Your task to perform on an android device: Add "corsair k70" to the cart on newegg, then select checkout. Image 0: 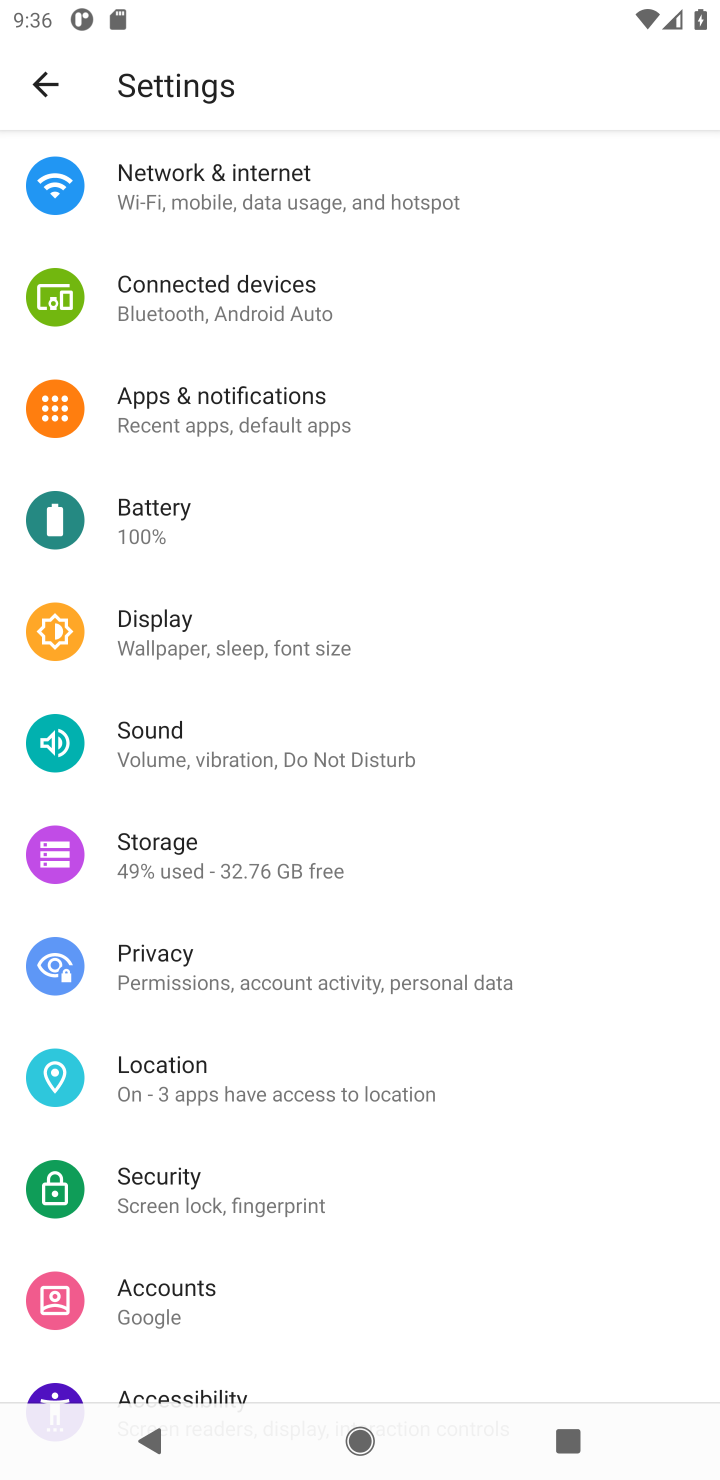
Step 0: press home button
Your task to perform on an android device: Add "corsair k70" to the cart on newegg, then select checkout. Image 1: 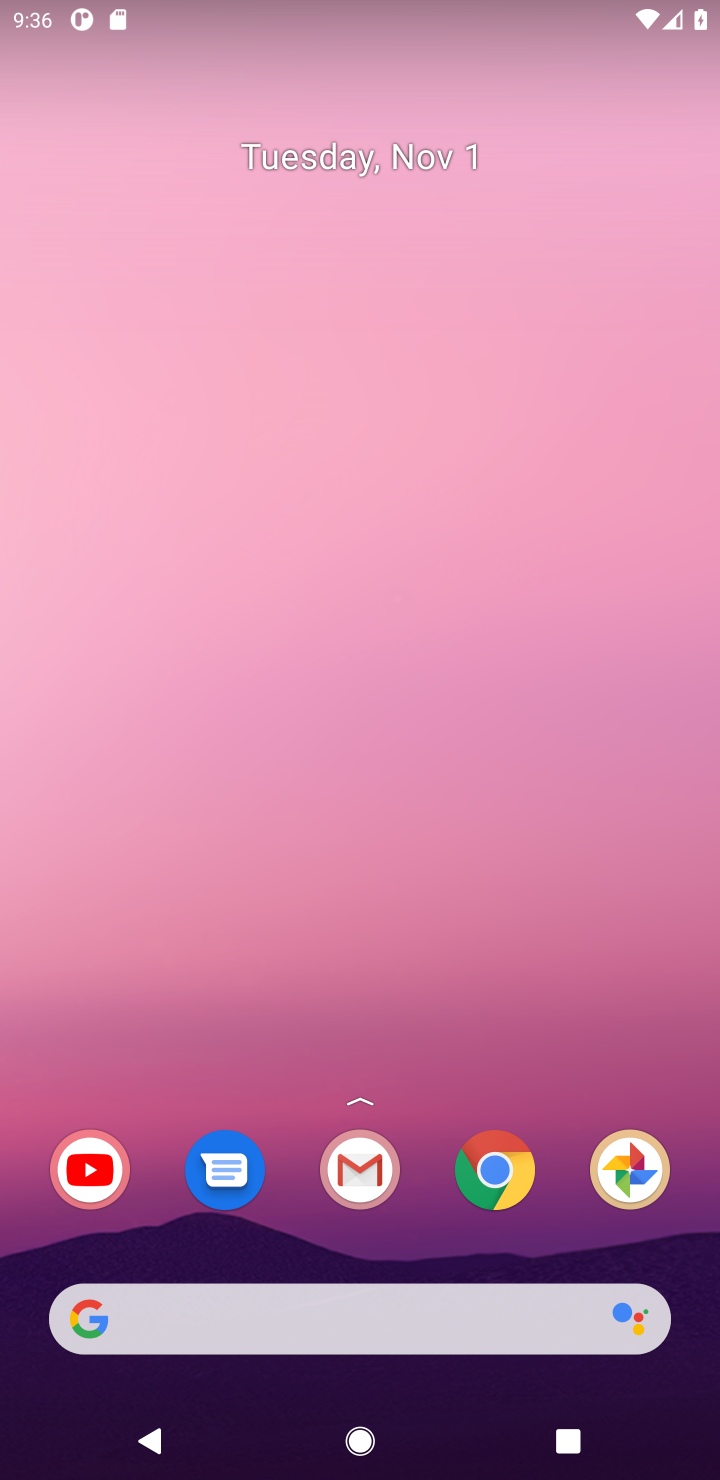
Step 1: click (88, 1316)
Your task to perform on an android device: Add "corsair k70" to the cart on newegg, then select checkout. Image 2: 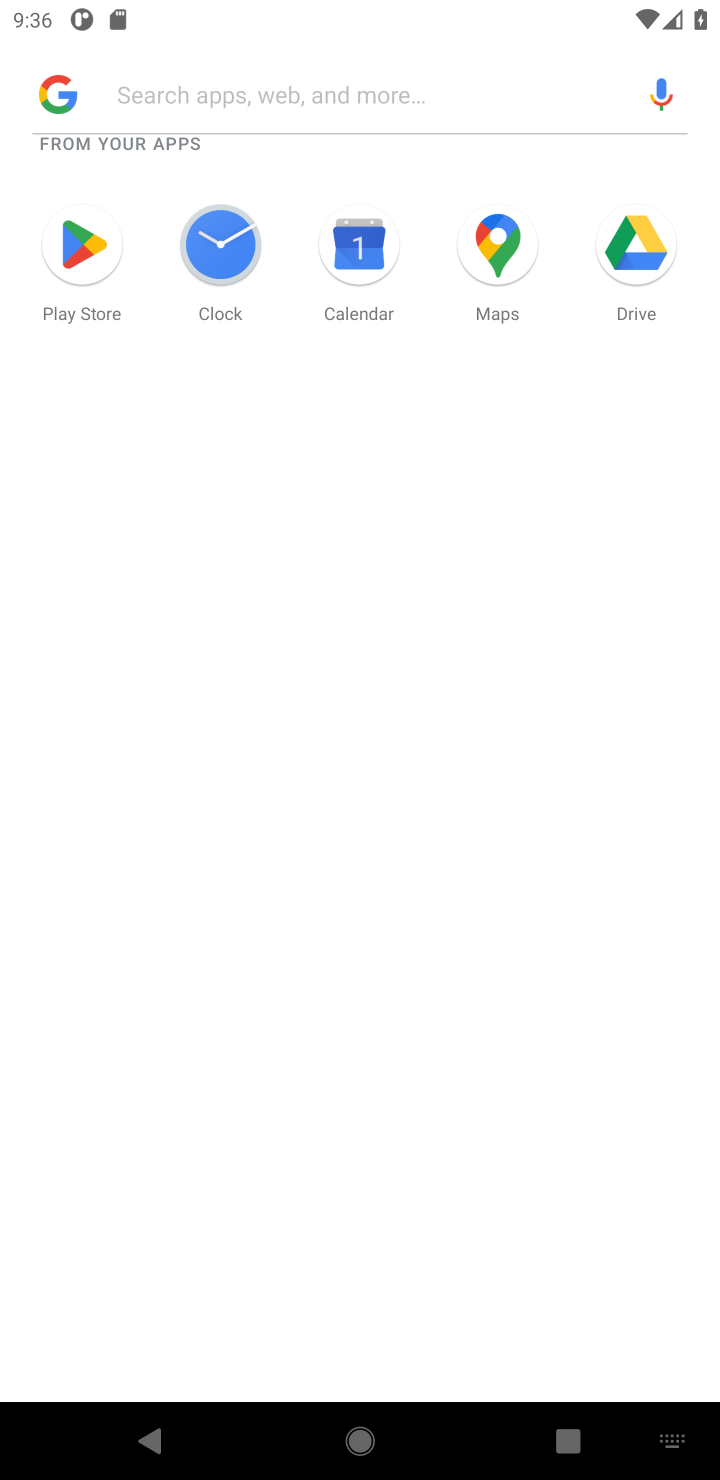
Step 2: type "newegg"
Your task to perform on an android device: Add "corsair k70" to the cart on newegg, then select checkout. Image 3: 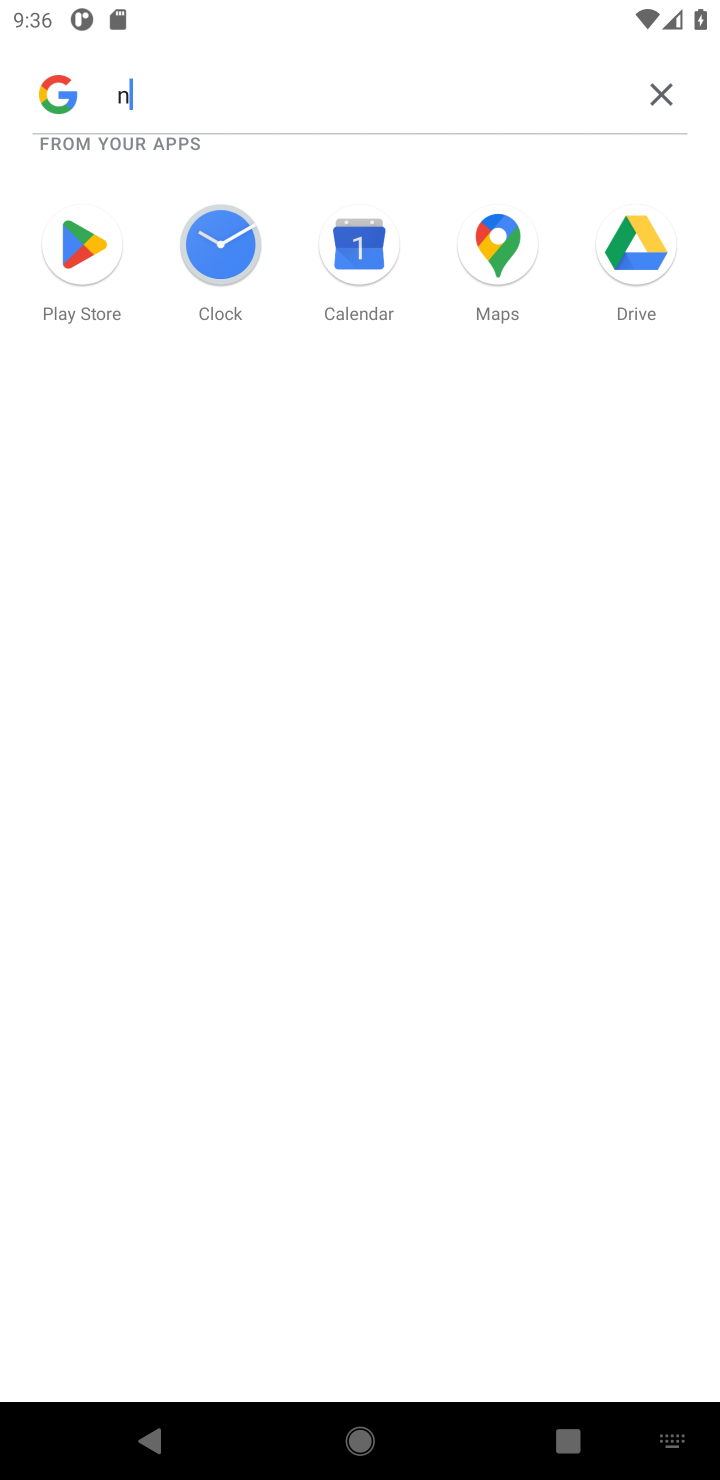
Step 3: press home button
Your task to perform on an android device: Add "corsair k70" to the cart on newegg, then select checkout. Image 4: 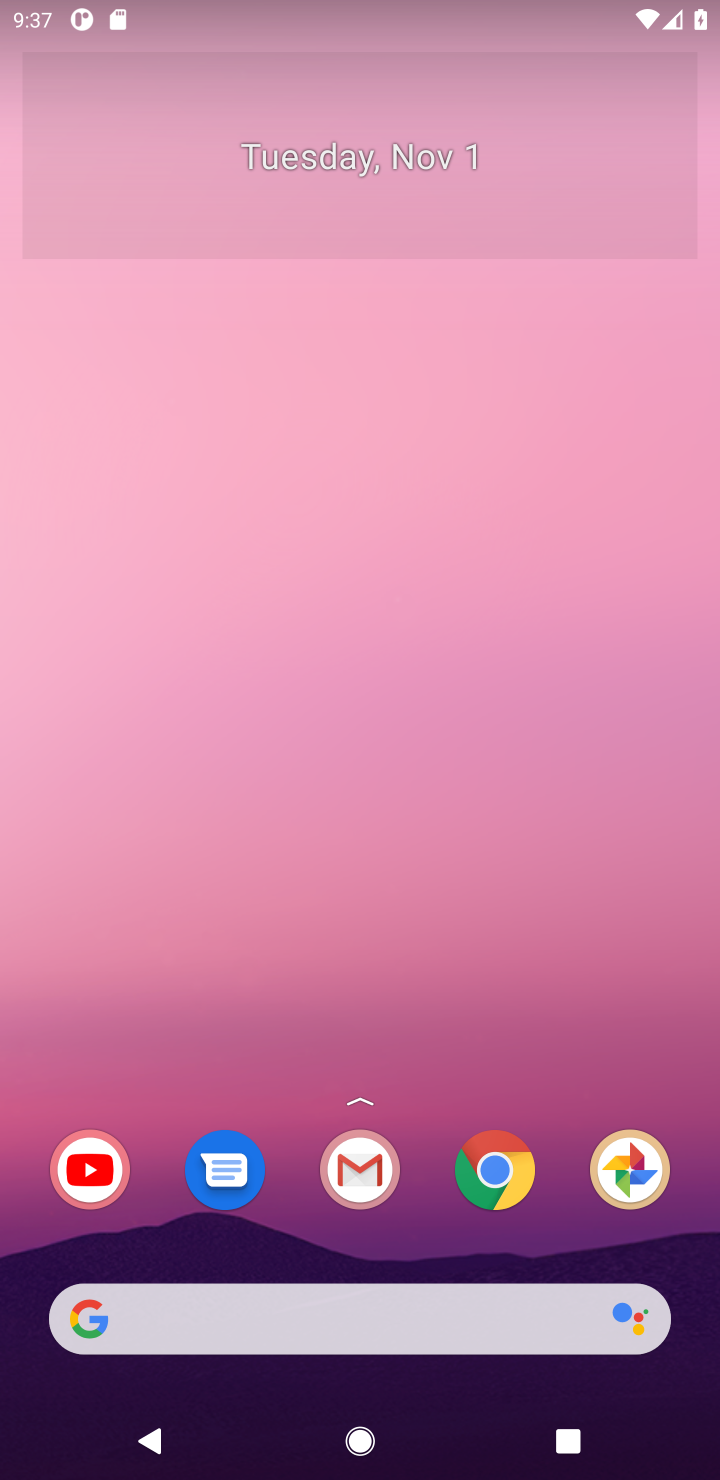
Step 4: click (488, 1185)
Your task to perform on an android device: Add "corsair k70" to the cart on newegg, then select checkout. Image 5: 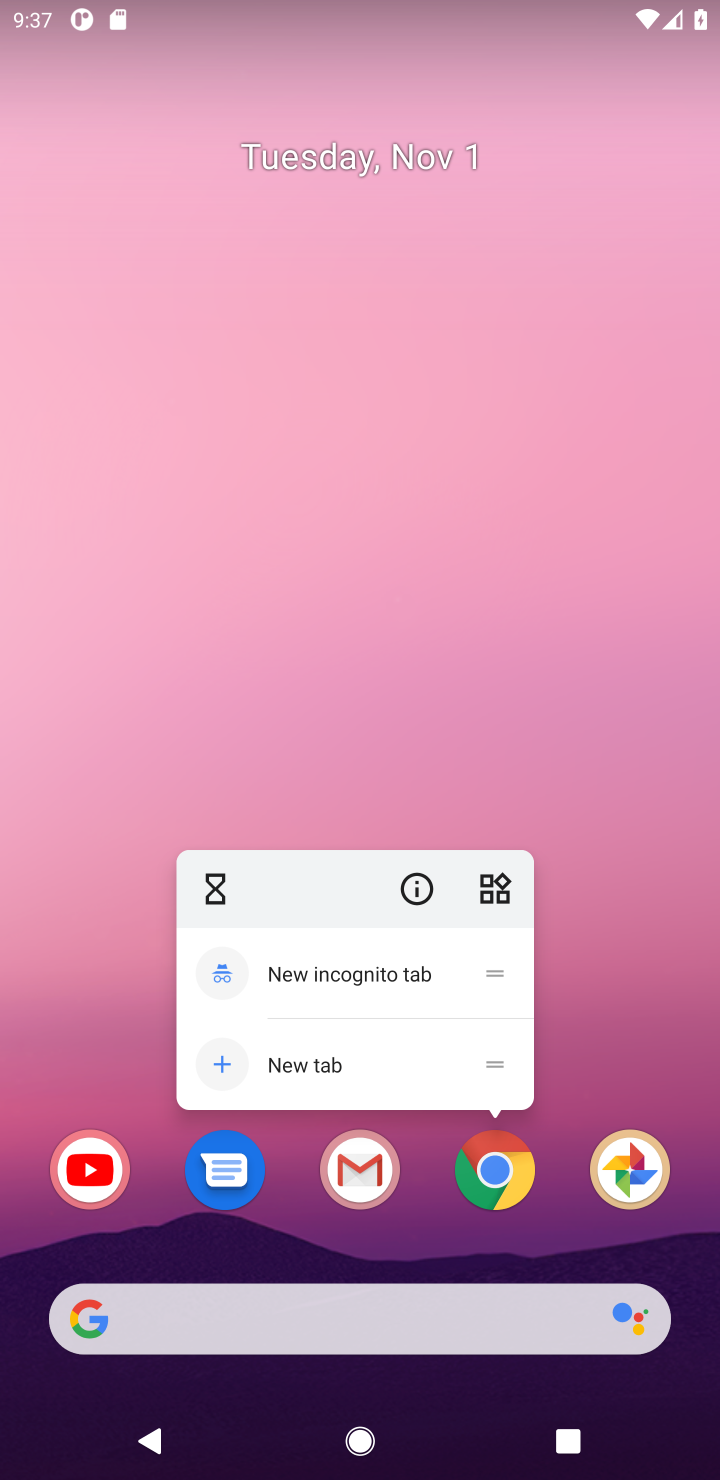
Step 5: click (87, 1333)
Your task to perform on an android device: Add "corsair k70" to the cart on newegg, then select checkout. Image 6: 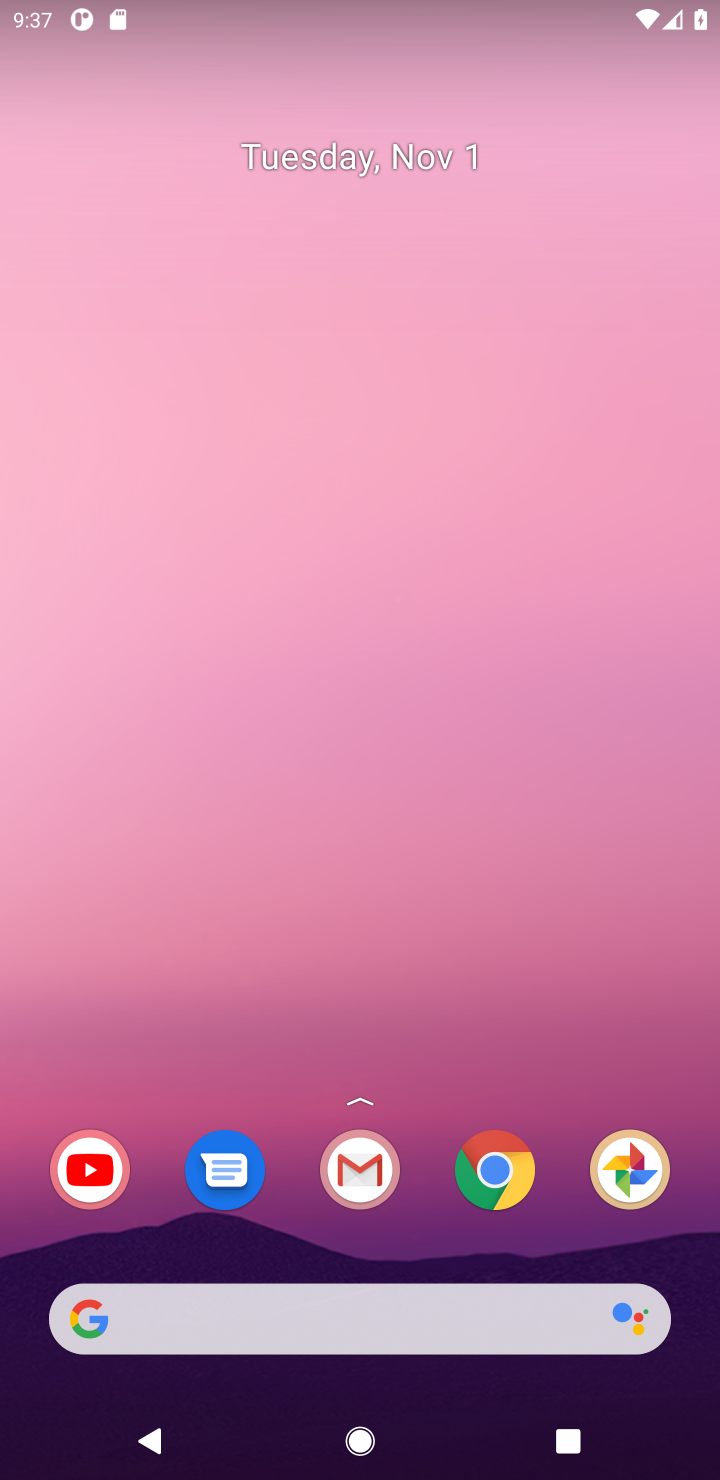
Step 6: click (85, 1325)
Your task to perform on an android device: Add "corsair k70" to the cart on newegg, then select checkout. Image 7: 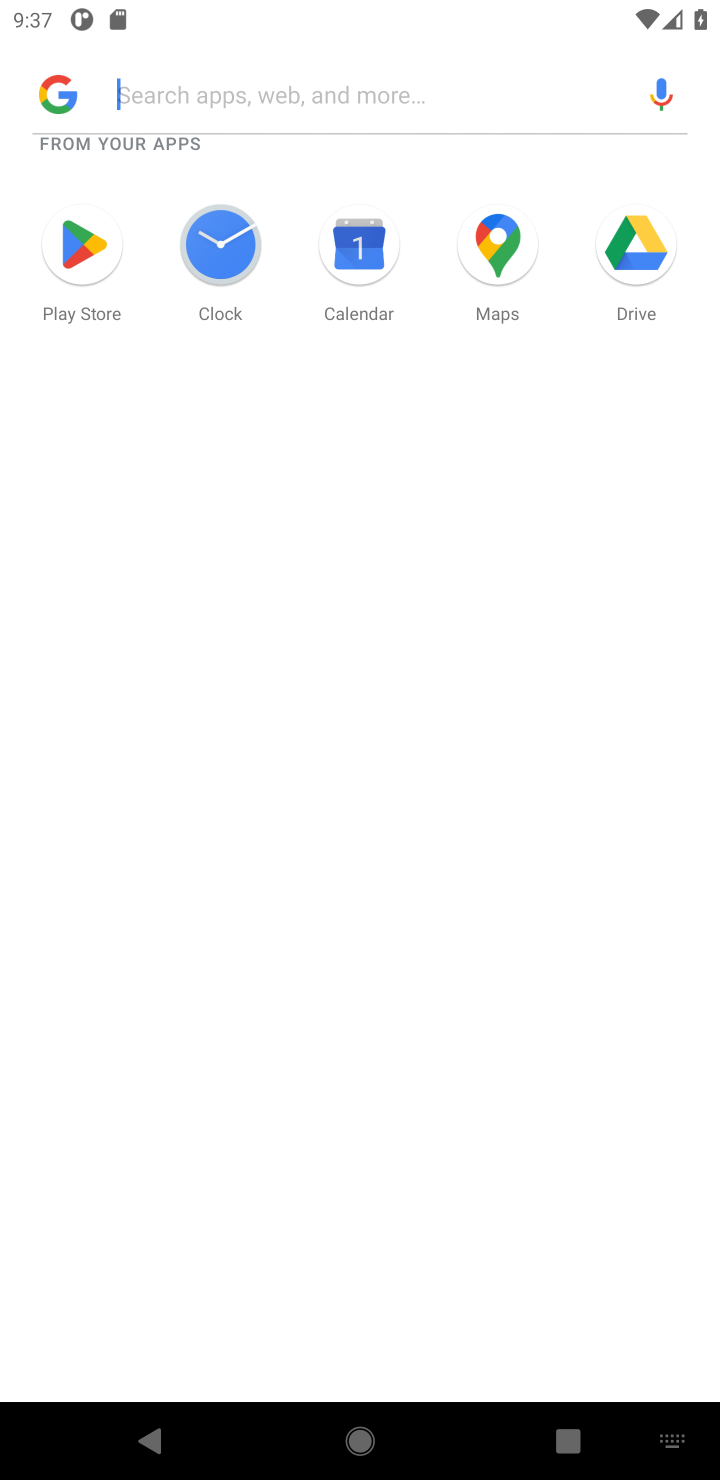
Step 7: press home button
Your task to perform on an android device: Add "corsair k70" to the cart on newegg, then select checkout. Image 8: 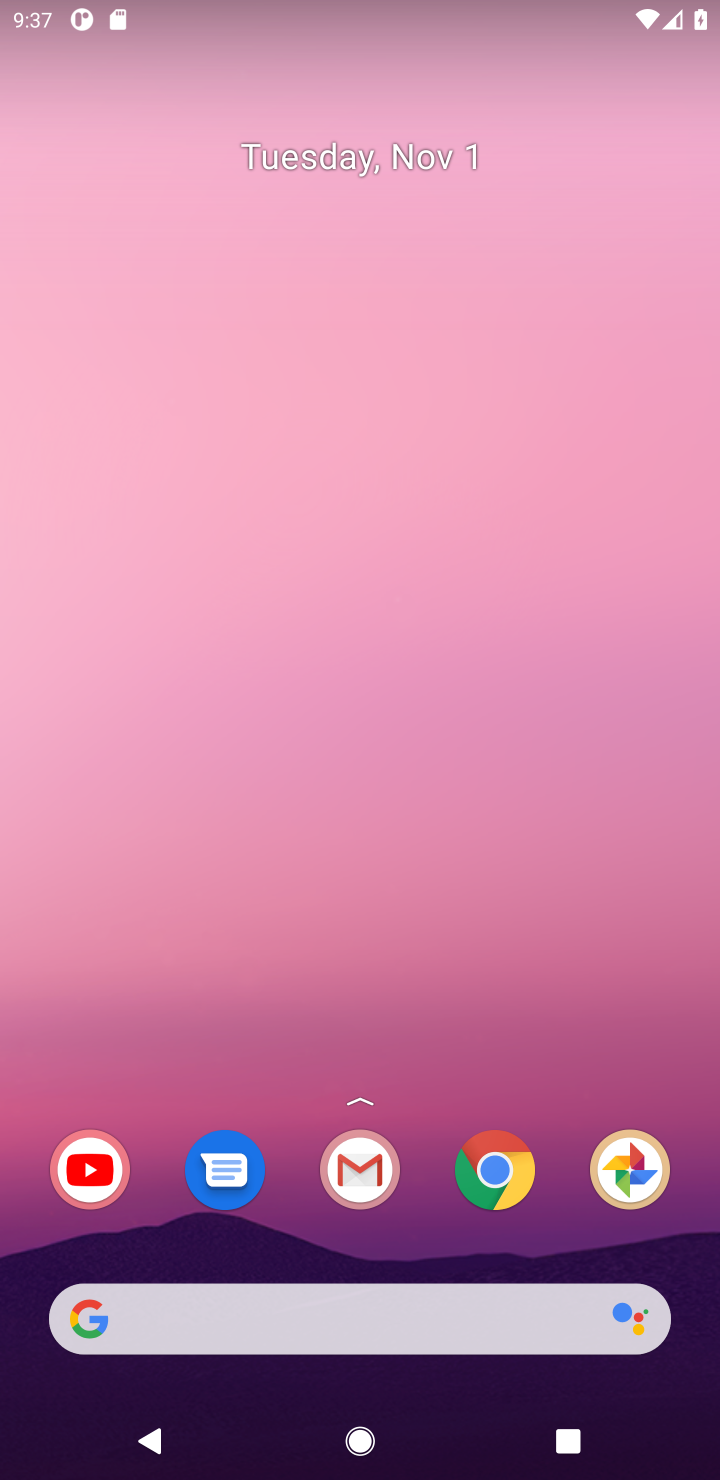
Step 8: click (505, 1164)
Your task to perform on an android device: Add "corsair k70" to the cart on newegg, then select checkout. Image 9: 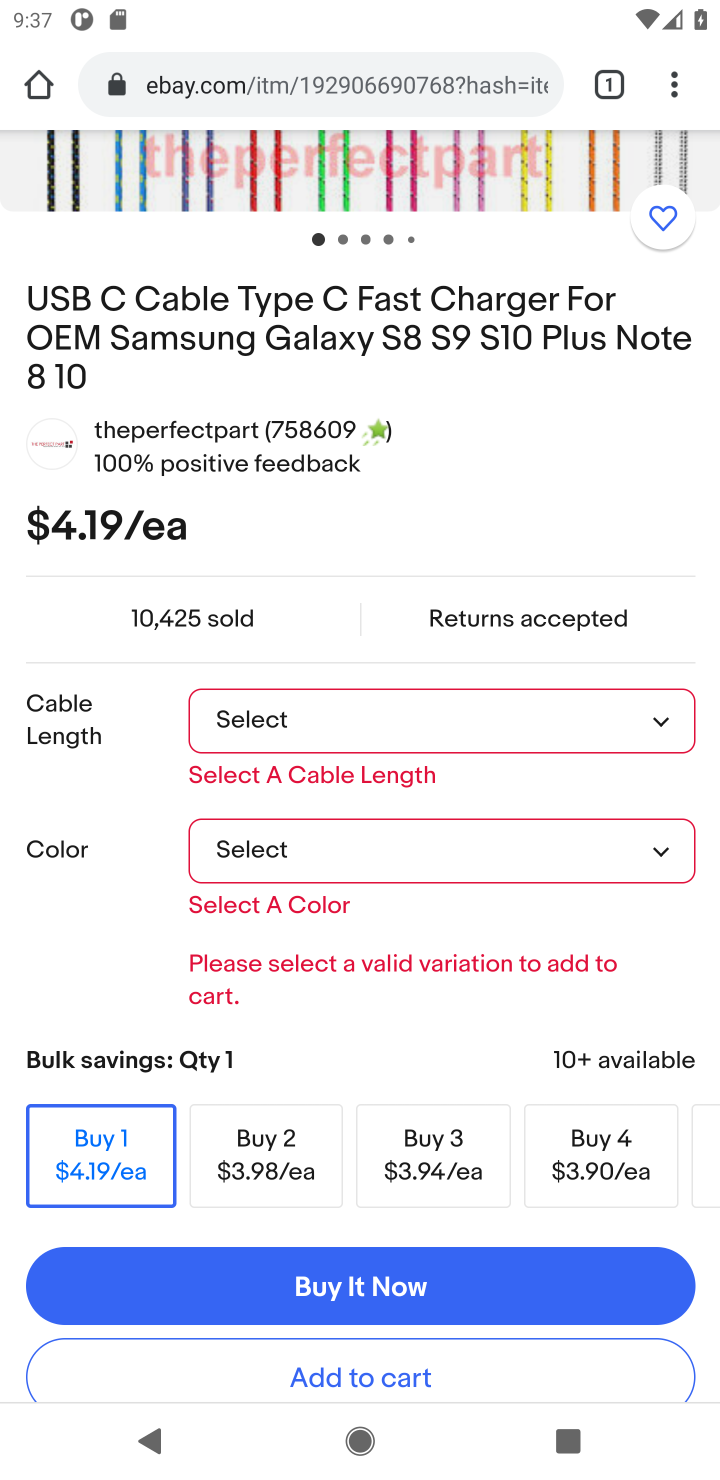
Step 9: click (390, 75)
Your task to perform on an android device: Add "corsair k70" to the cart on newegg, then select checkout. Image 10: 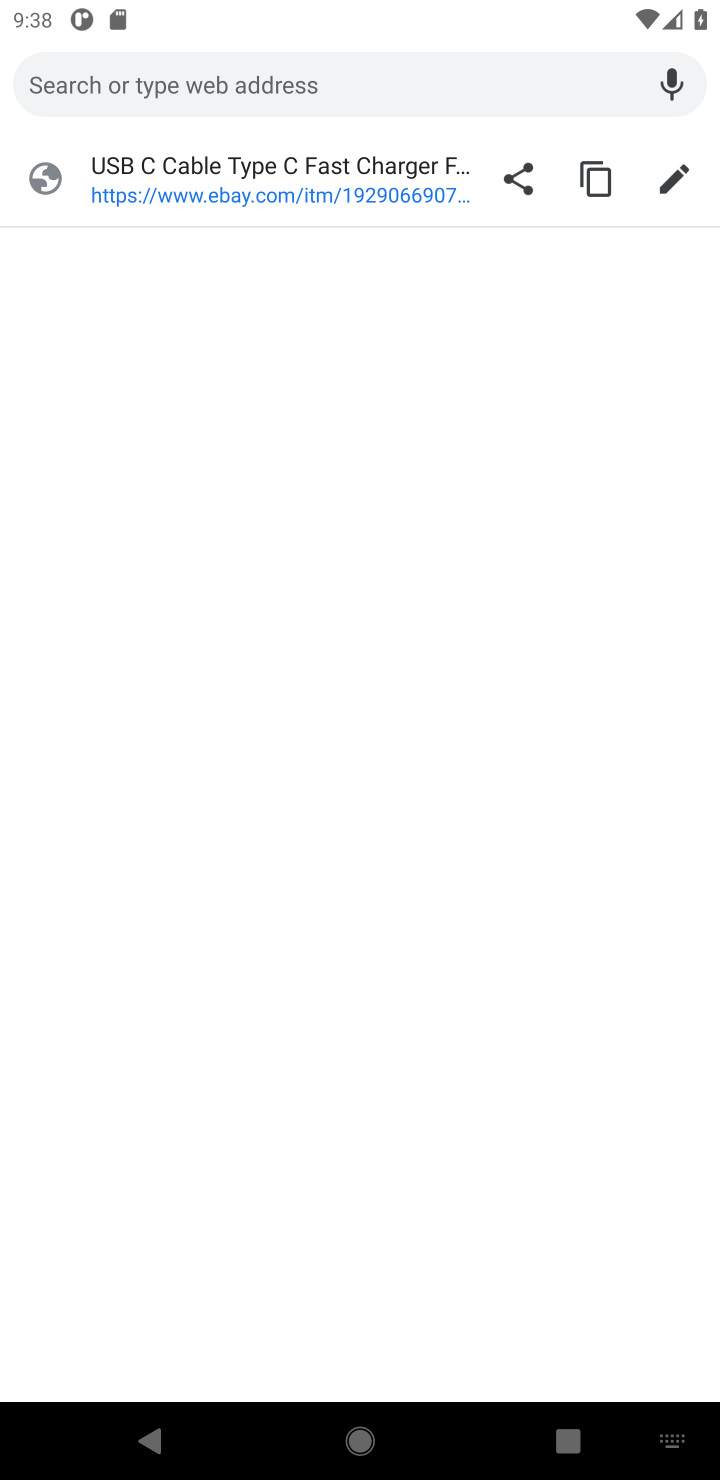
Step 10: type "newegg"
Your task to perform on an android device: Add "corsair k70" to the cart on newegg, then select checkout. Image 11: 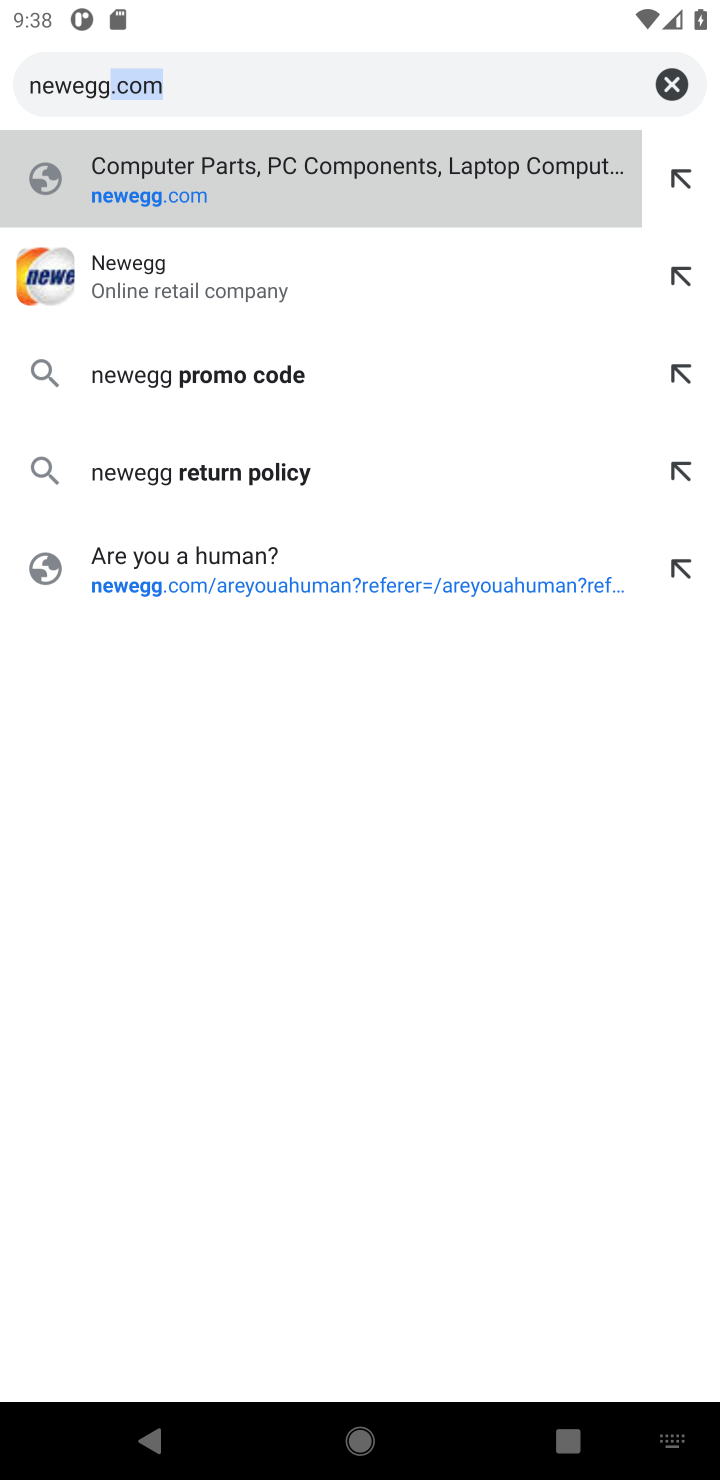
Step 11: click (149, 268)
Your task to perform on an android device: Add "corsair k70" to the cart on newegg, then select checkout. Image 12: 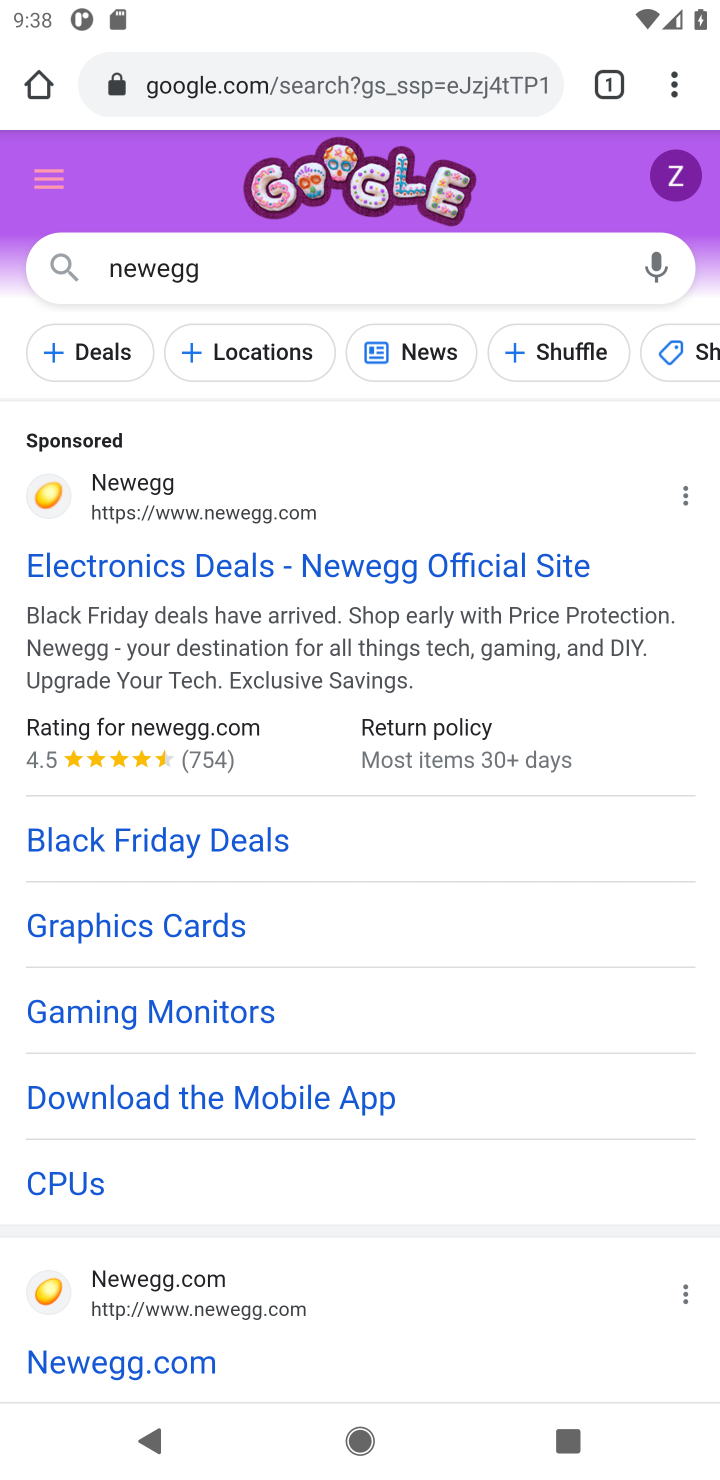
Step 12: click (147, 489)
Your task to perform on an android device: Add "corsair k70" to the cart on newegg, then select checkout. Image 13: 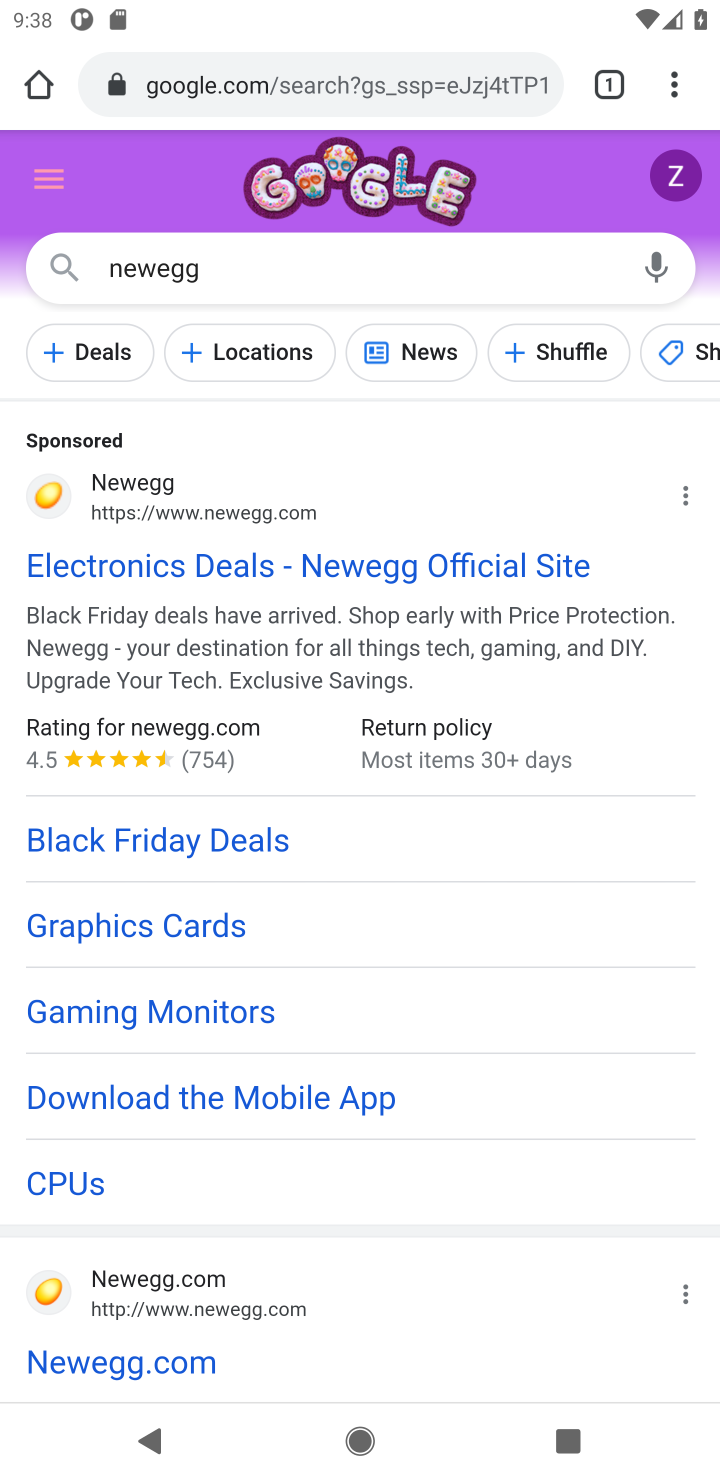
Step 13: click (150, 569)
Your task to perform on an android device: Add "corsair k70" to the cart on newegg, then select checkout. Image 14: 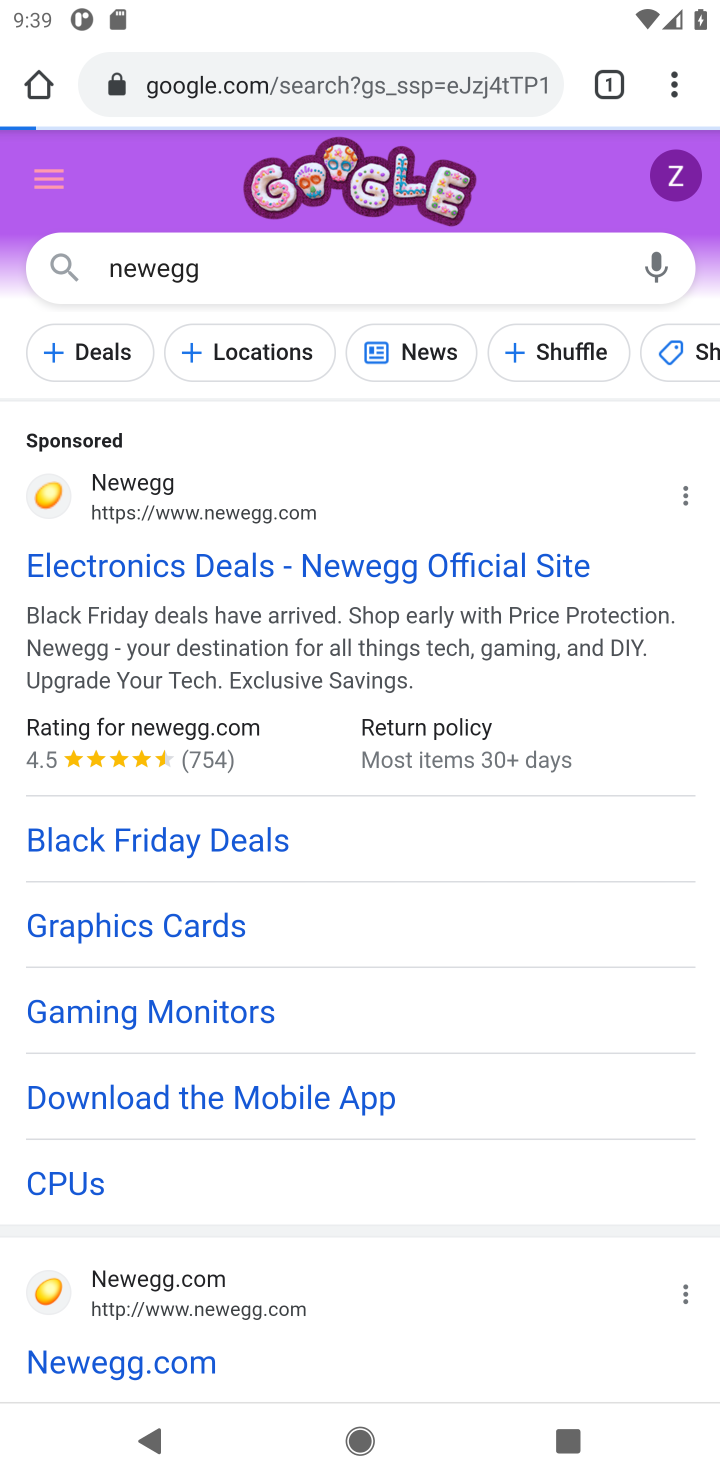
Step 14: click (489, 569)
Your task to perform on an android device: Add "corsair k70" to the cart on newegg, then select checkout. Image 15: 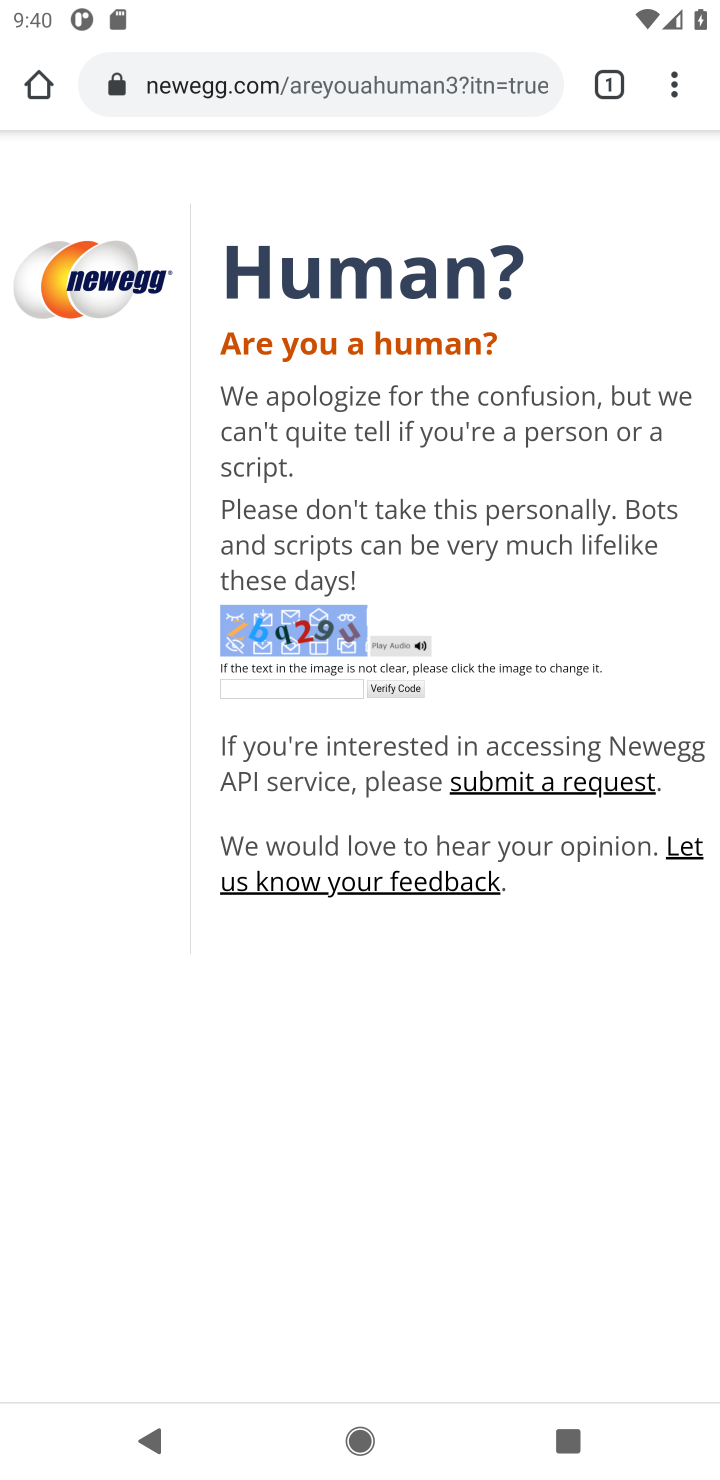
Step 15: click (118, 285)
Your task to perform on an android device: Add "corsair k70" to the cart on newegg, then select checkout. Image 16: 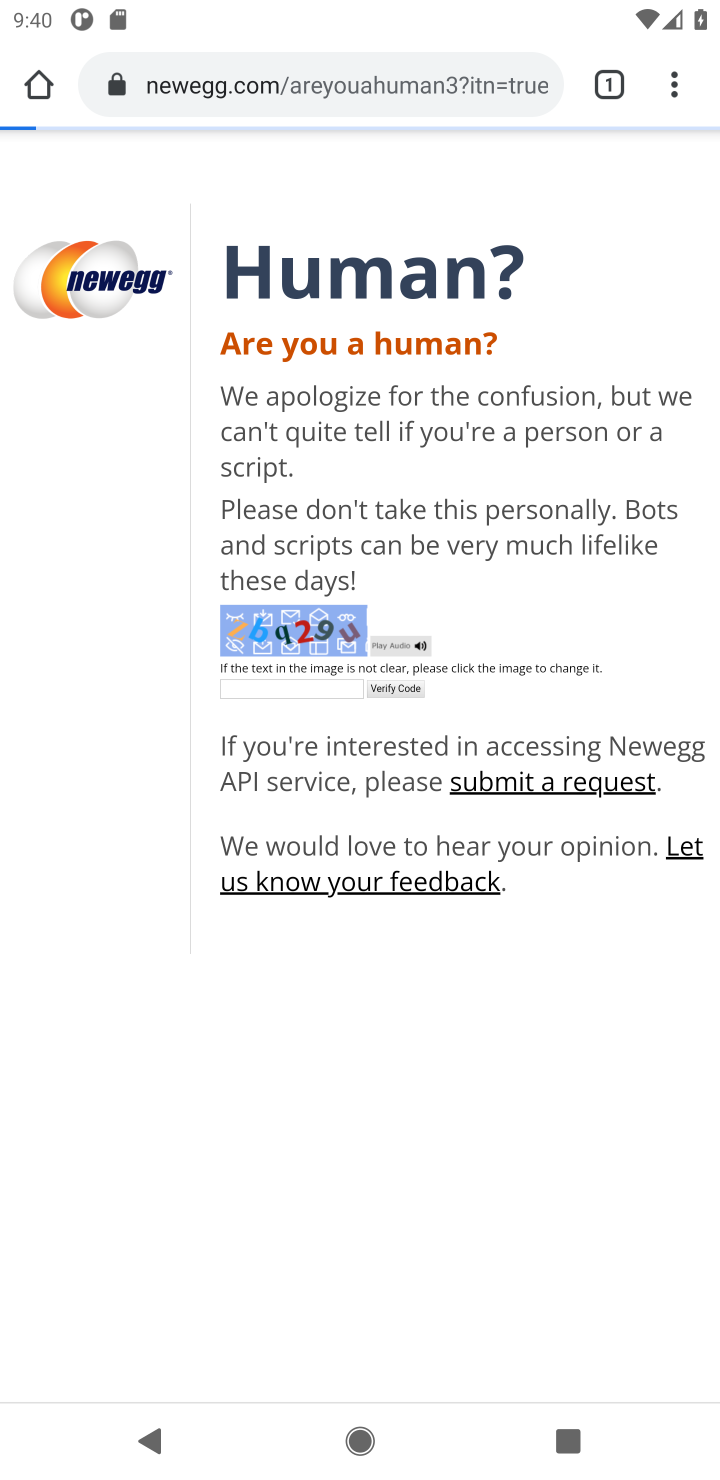
Step 16: click (118, 285)
Your task to perform on an android device: Add "corsair k70" to the cart on newegg, then select checkout. Image 17: 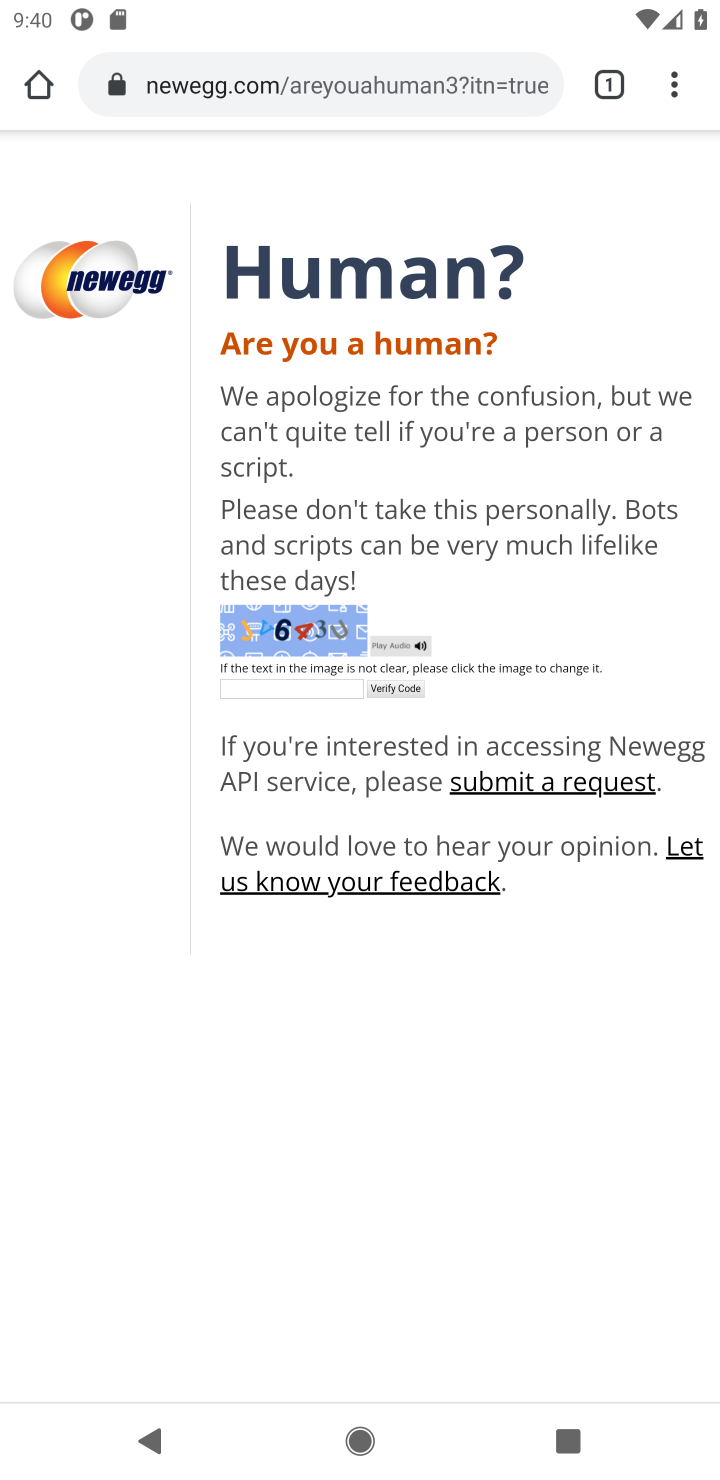
Step 17: task complete